Your task to perform on an android device: set the timer Image 0: 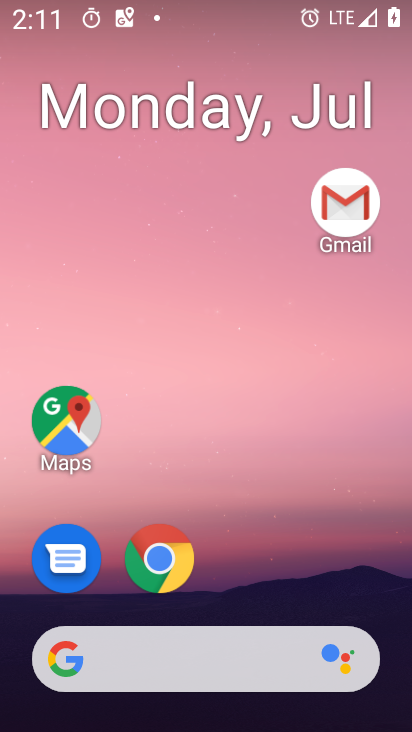
Step 0: drag from (343, 555) to (371, 145)
Your task to perform on an android device: set the timer Image 1: 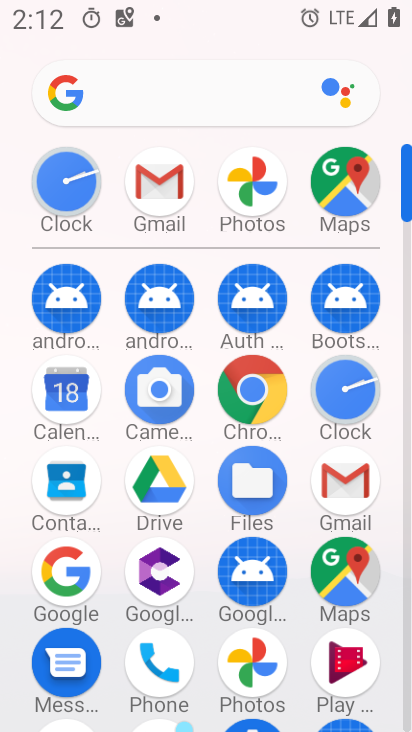
Step 1: click (361, 392)
Your task to perform on an android device: set the timer Image 2: 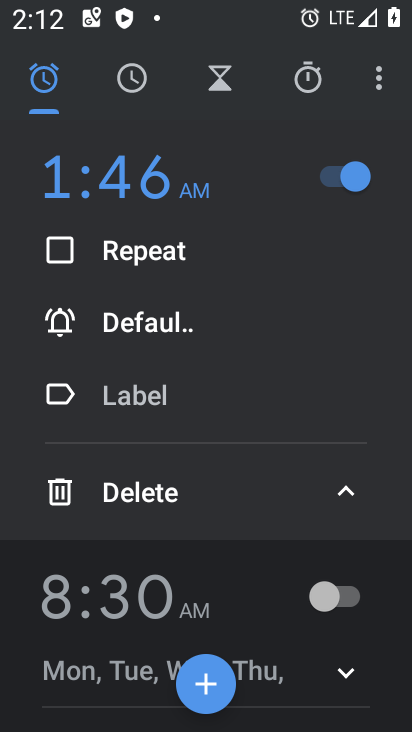
Step 2: click (219, 81)
Your task to perform on an android device: set the timer Image 3: 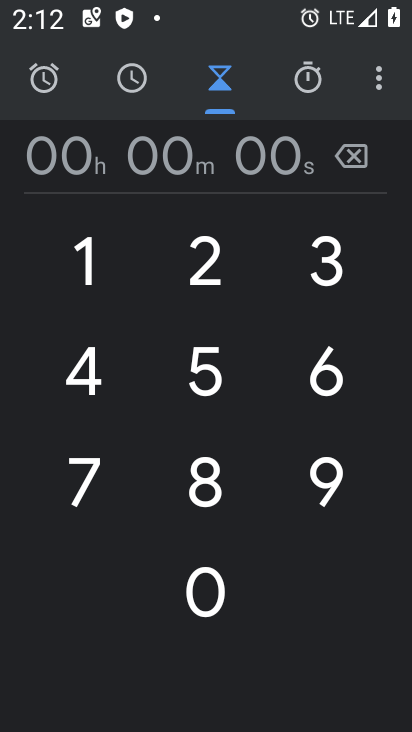
Step 3: click (213, 353)
Your task to perform on an android device: set the timer Image 4: 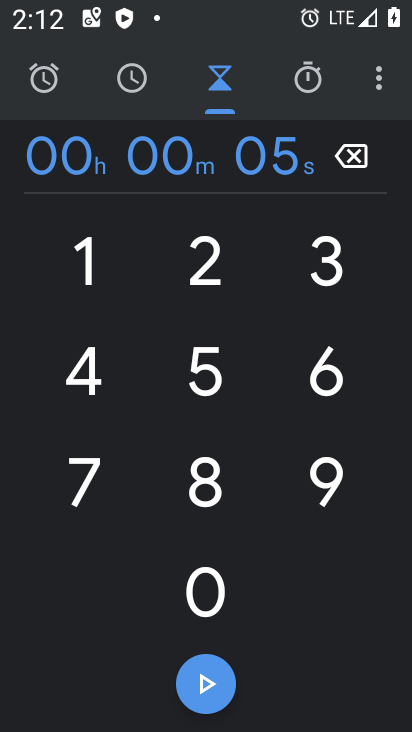
Step 4: task complete